Your task to perform on an android device: turn pop-ups on in chrome Image 0: 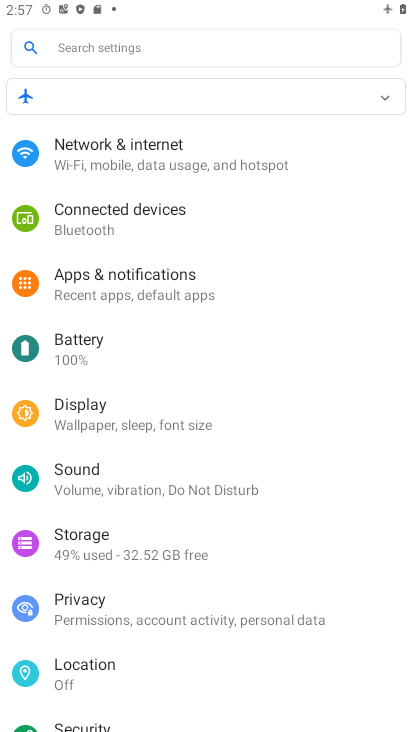
Step 0: press home button
Your task to perform on an android device: turn pop-ups on in chrome Image 1: 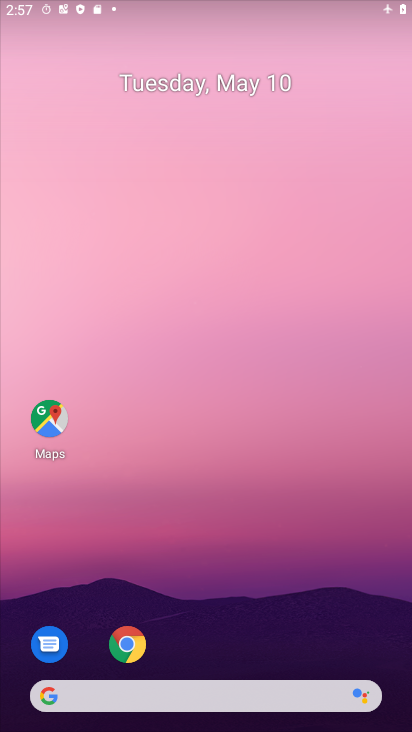
Step 1: drag from (254, 529) to (227, 205)
Your task to perform on an android device: turn pop-ups on in chrome Image 2: 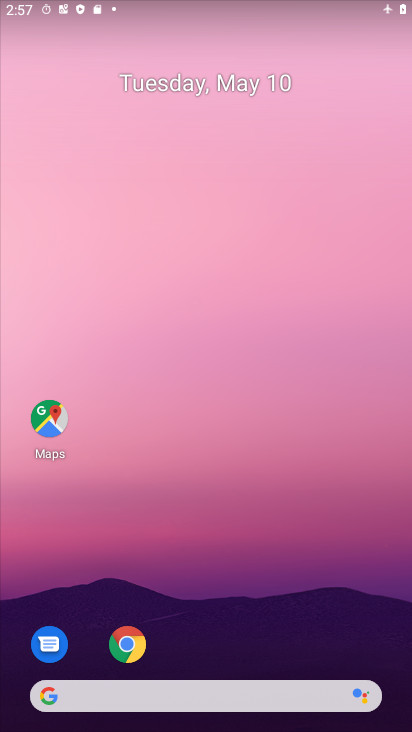
Step 2: drag from (254, 574) to (223, 204)
Your task to perform on an android device: turn pop-ups on in chrome Image 3: 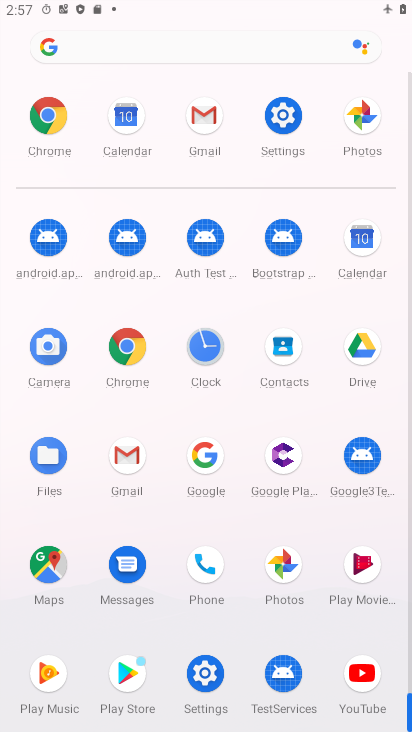
Step 3: click (134, 375)
Your task to perform on an android device: turn pop-ups on in chrome Image 4: 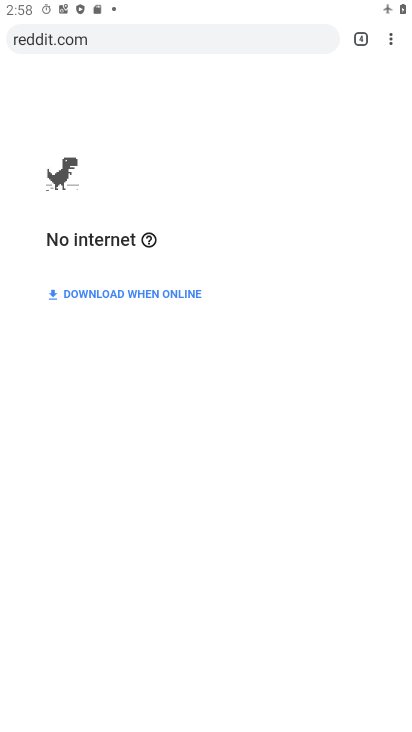
Step 4: click (389, 45)
Your task to perform on an android device: turn pop-ups on in chrome Image 5: 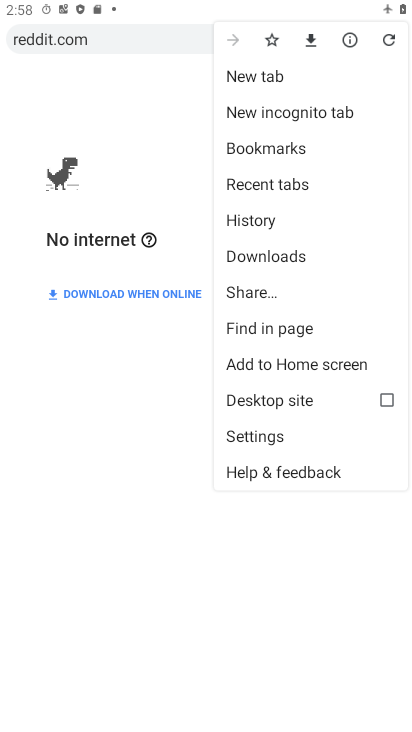
Step 5: click (293, 441)
Your task to perform on an android device: turn pop-ups on in chrome Image 6: 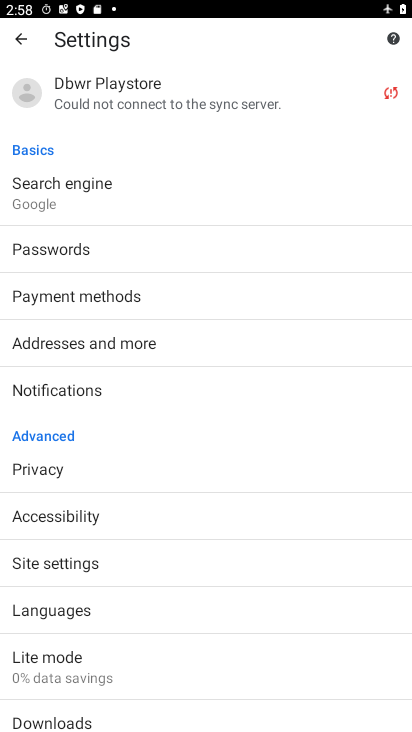
Step 6: click (82, 571)
Your task to perform on an android device: turn pop-ups on in chrome Image 7: 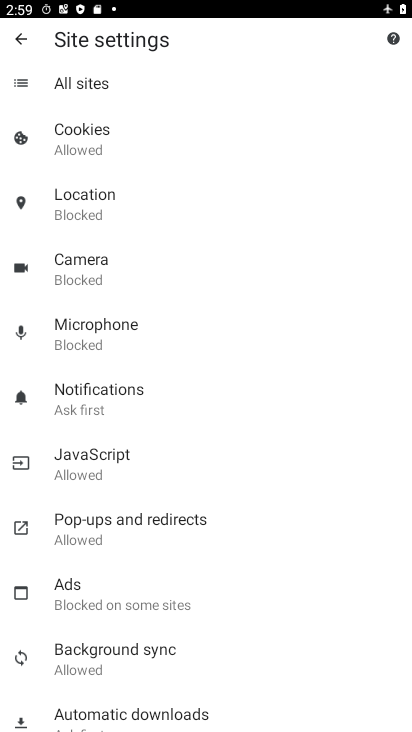
Step 7: click (155, 537)
Your task to perform on an android device: turn pop-ups on in chrome Image 8: 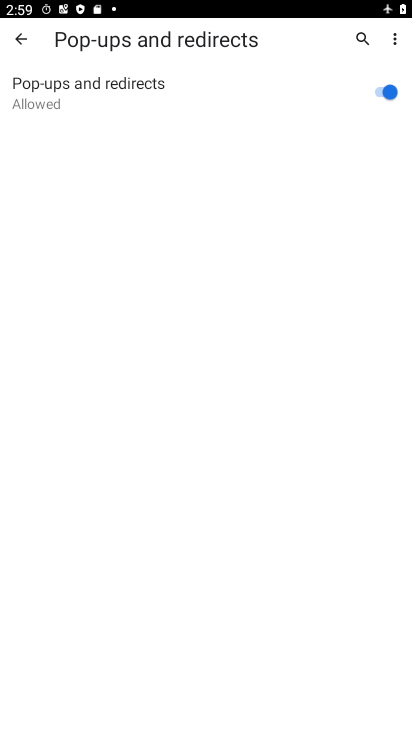
Step 8: task complete